Your task to perform on an android device: toggle data saver in the chrome app Image 0: 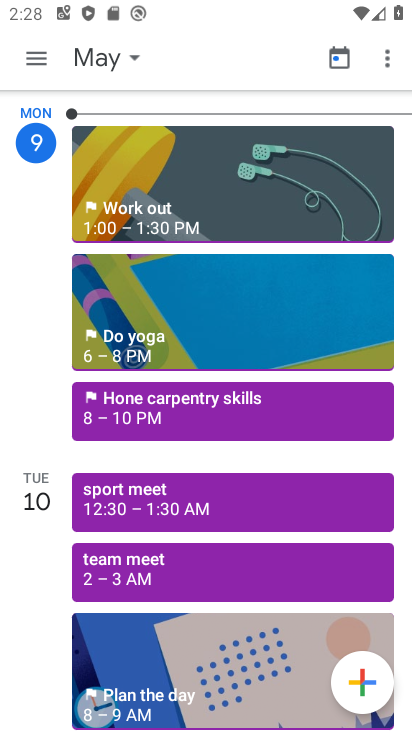
Step 0: press back button
Your task to perform on an android device: toggle data saver in the chrome app Image 1: 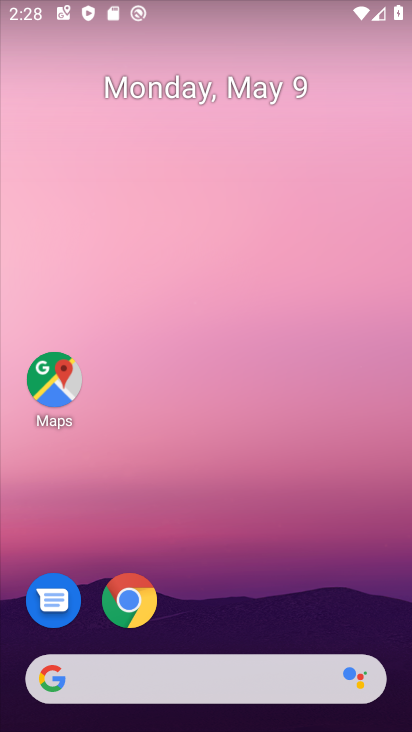
Step 1: click (126, 591)
Your task to perform on an android device: toggle data saver in the chrome app Image 2: 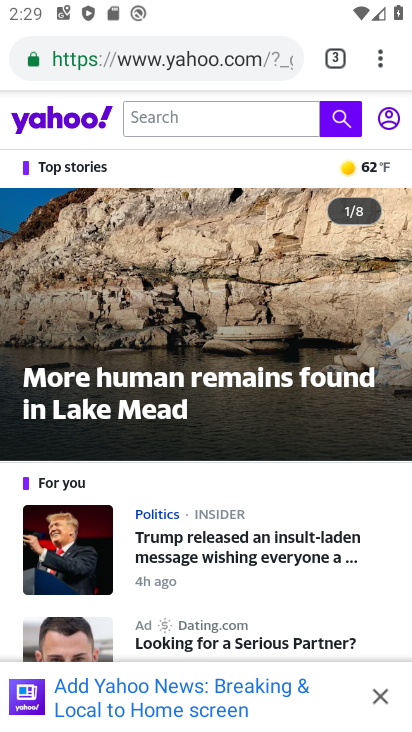
Step 2: drag from (383, 53) to (176, 641)
Your task to perform on an android device: toggle data saver in the chrome app Image 3: 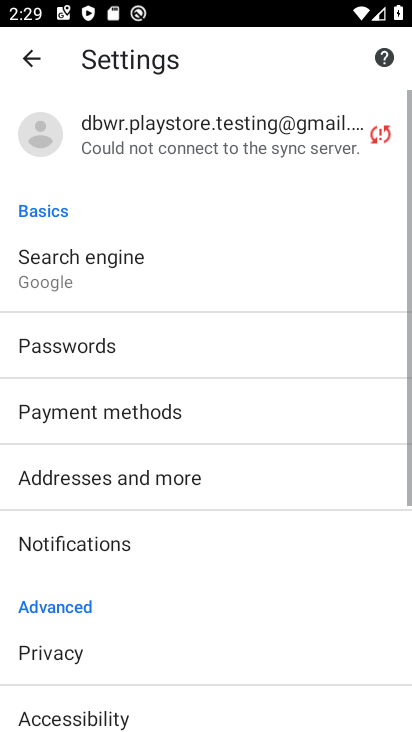
Step 3: drag from (171, 629) to (266, 205)
Your task to perform on an android device: toggle data saver in the chrome app Image 4: 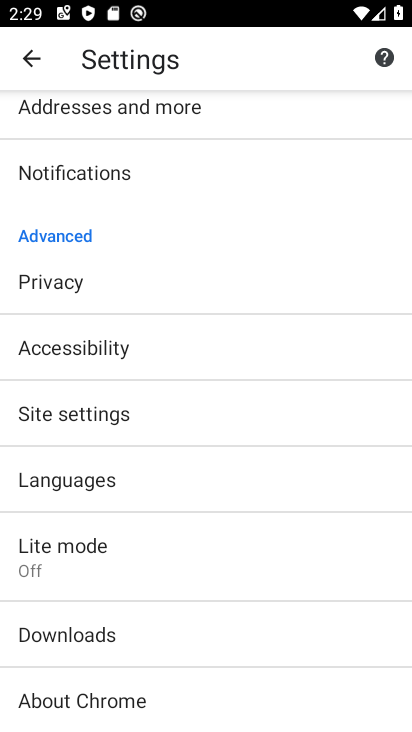
Step 4: click (118, 565)
Your task to perform on an android device: toggle data saver in the chrome app Image 5: 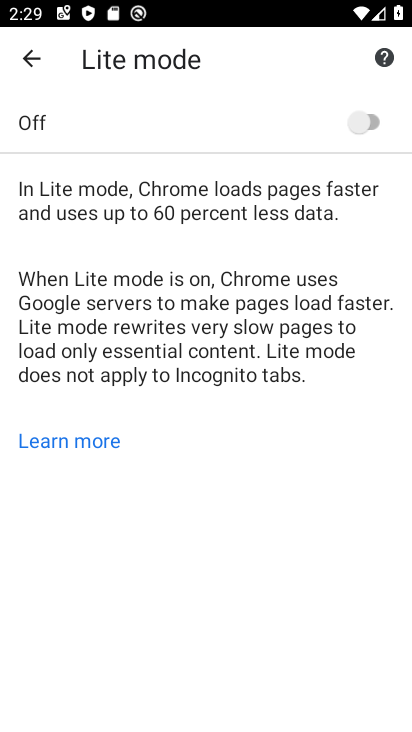
Step 5: click (361, 130)
Your task to perform on an android device: toggle data saver in the chrome app Image 6: 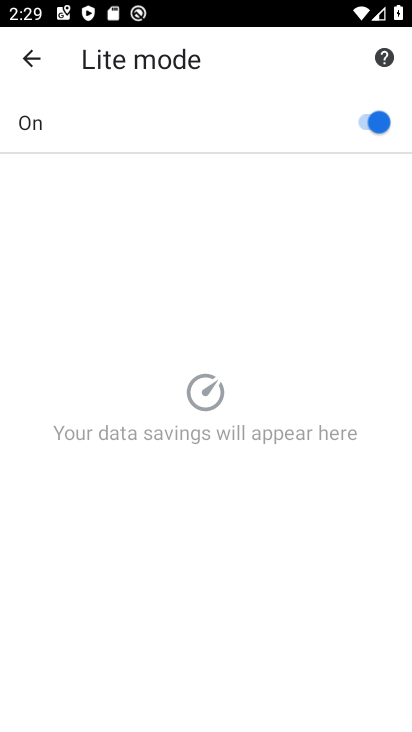
Step 6: task complete